Your task to perform on an android device: toggle wifi Image 0: 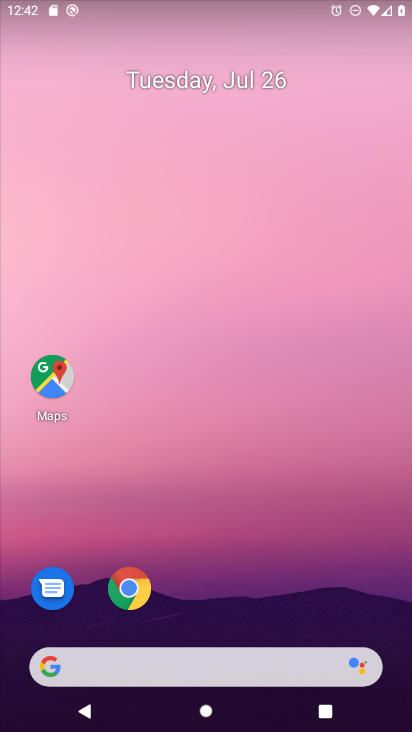
Step 0: drag from (248, 627) to (226, 136)
Your task to perform on an android device: toggle wifi Image 1: 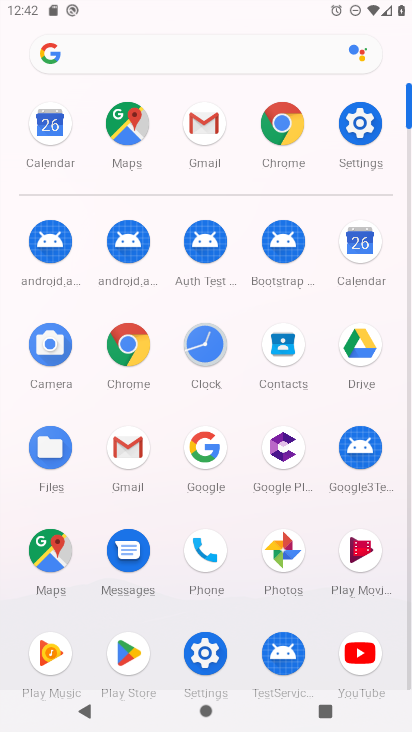
Step 1: click (371, 135)
Your task to perform on an android device: toggle wifi Image 2: 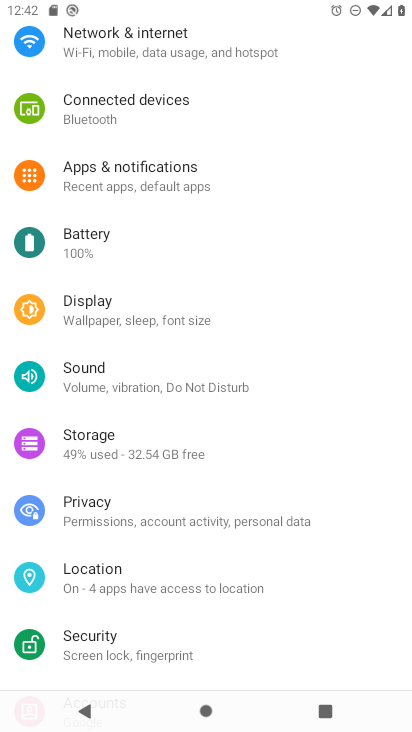
Step 2: click (206, 63)
Your task to perform on an android device: toggle wifi Image 3: 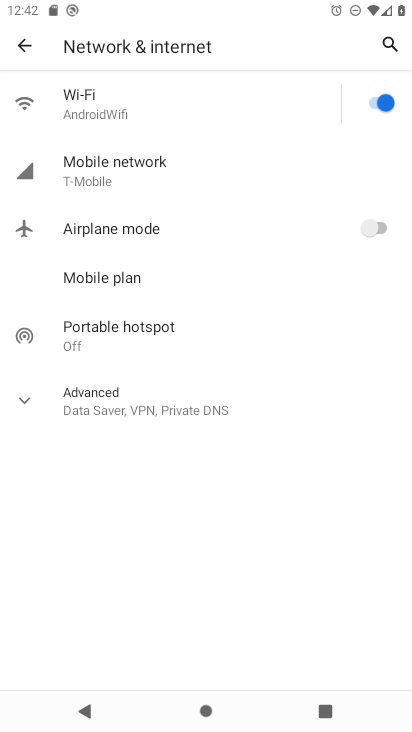
Step 3: click (367, 115)
Your task to perform on an android device: toggle wifi Image 4: 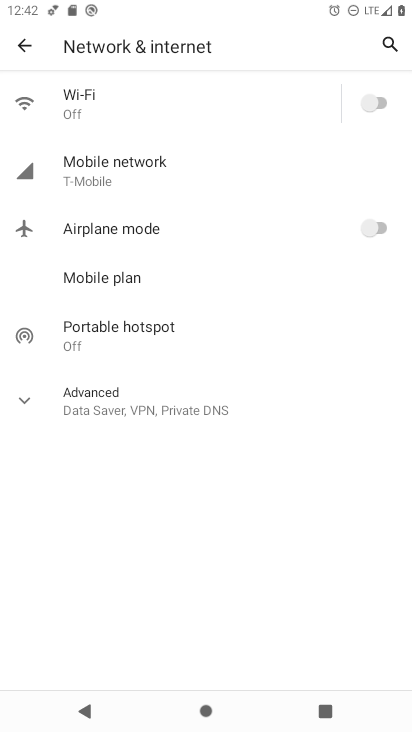
Step 4: task complete